Your task to perform on an android device: Go to settings Image 0: 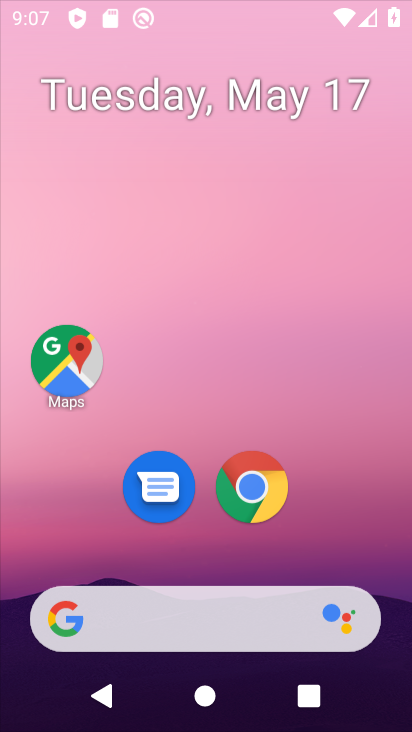
Step 0: drag from (216, 537) to (178, 290)
Your task to perform on an android device: Go to settings Image 1: 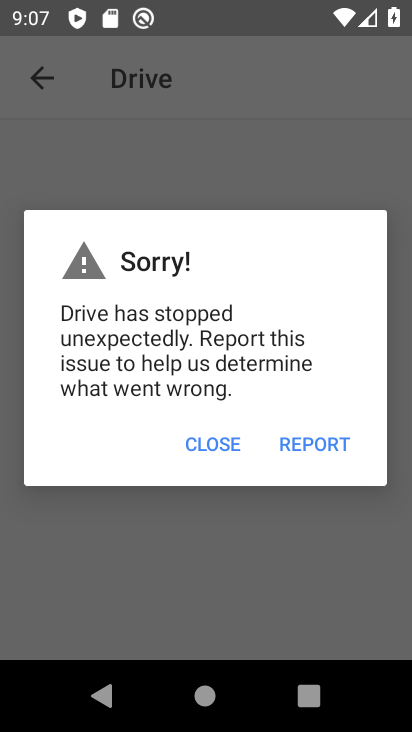
Step 1: press home button
Your task to perform on an android device: Go to settings Image 2: 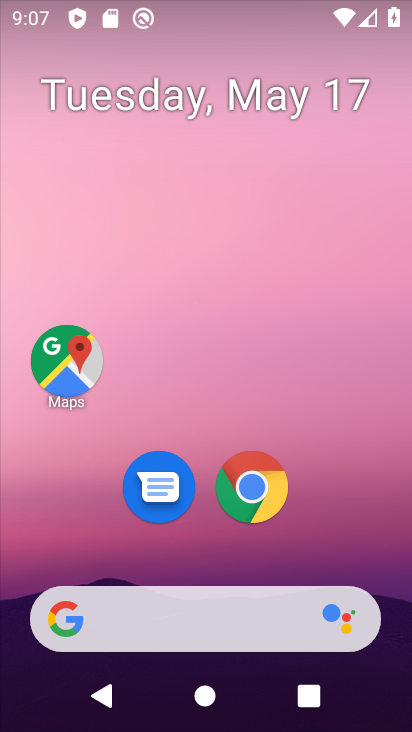
Step 2: drag from (244, 652) to (212, 323)
Your task to perform on an android device: Go to settings Image 3: 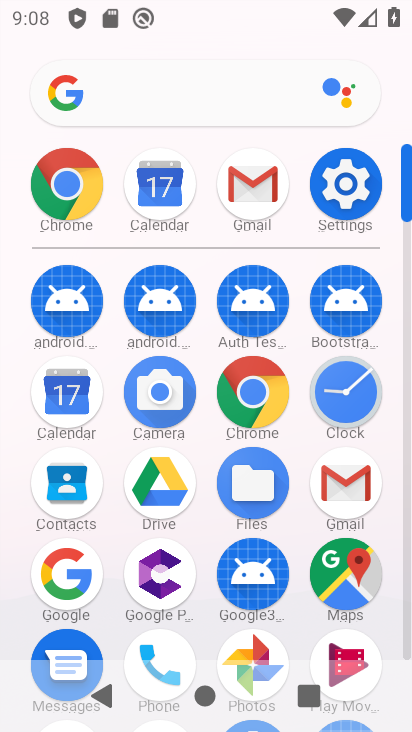
Step 3: click (333, 191)
Your task to perform on an android device: Go to settings Image 4: 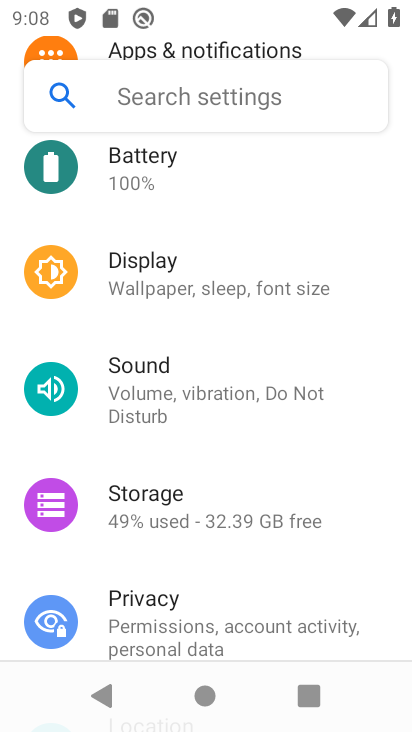
Step 4: task complete